Your task to perform on an android device: turn off priority inbox in the gmail app Image 0: 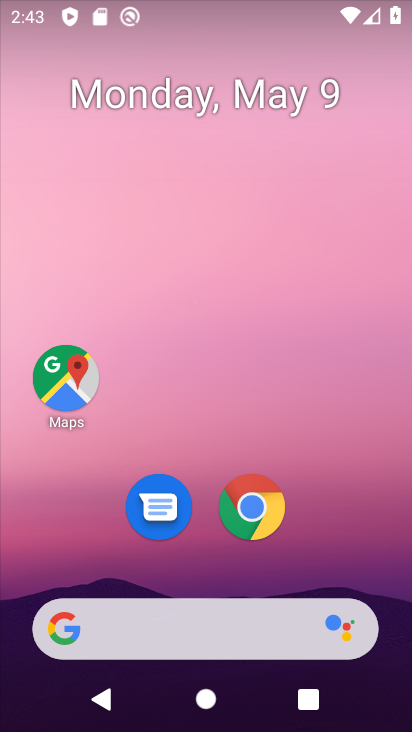
Step 0: drag from (263, 585) to (90, 3)
Your task to perform on an android device: turn off priority inbox in the gmail app Image 1: 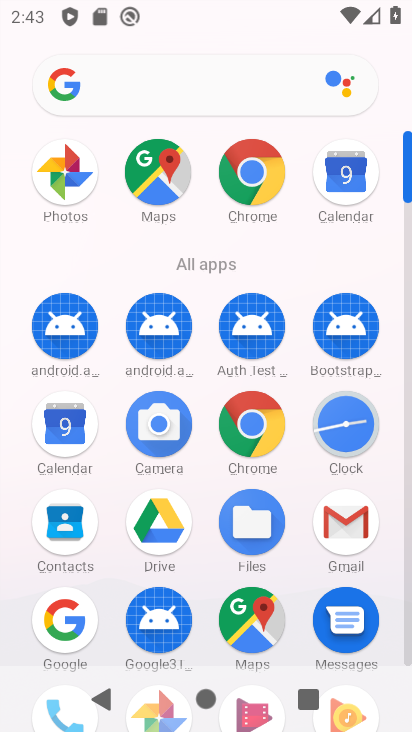
Step 1: click (376, 500)
Your task to perform on an android device: turn off priority inbox in the gmail app Image 2: 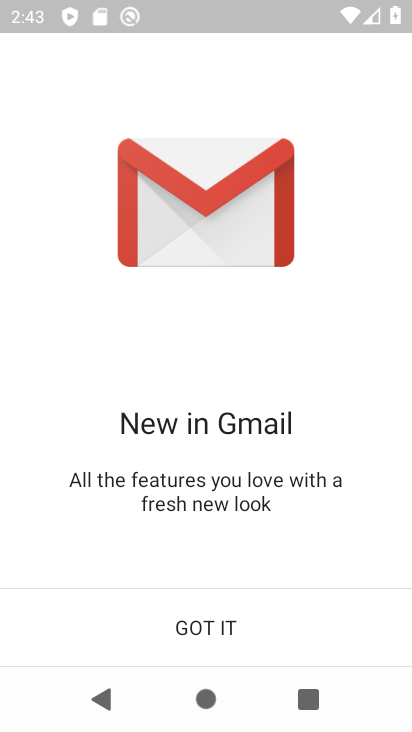
Step 2: click (353, 511)
Your task to perform on an android device: turn off priority inbox in the gmail app Image 3: 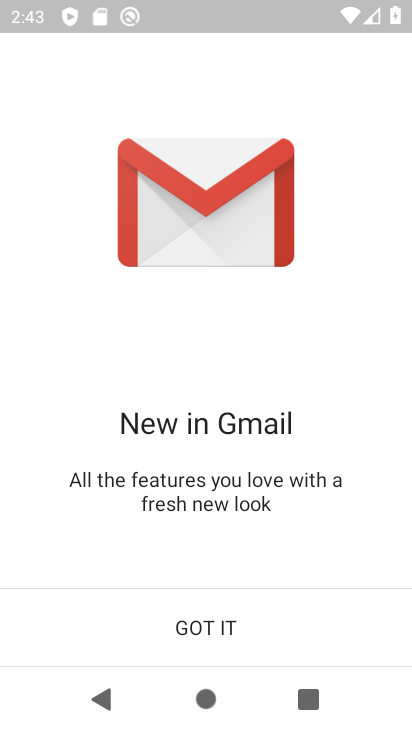
Step 3: click (209, 609)
Your task to perform on an android device: turn off priority inbox in the gmail app Image 4: 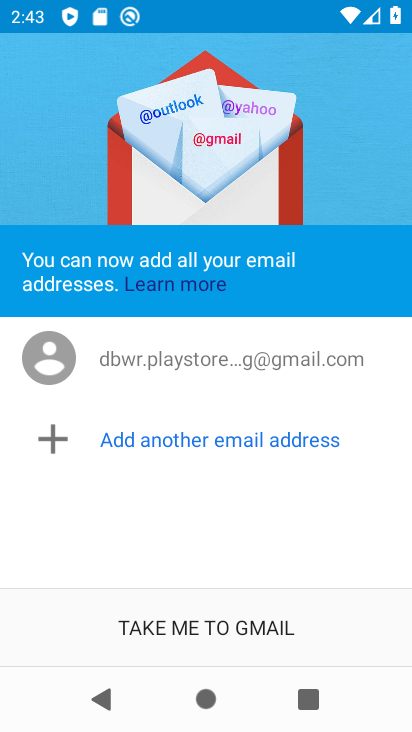
Step 4: click (209, 609)
Your task to perform on an android device: turn off priority inbox in the gmail app Image 5: 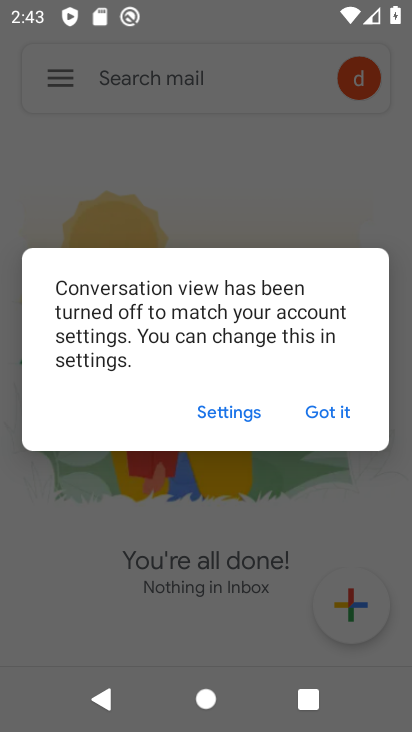
Step 5: click (318, 416)
Your task to perform on an android device: turn off priority inbox in the gmail app Image 6: 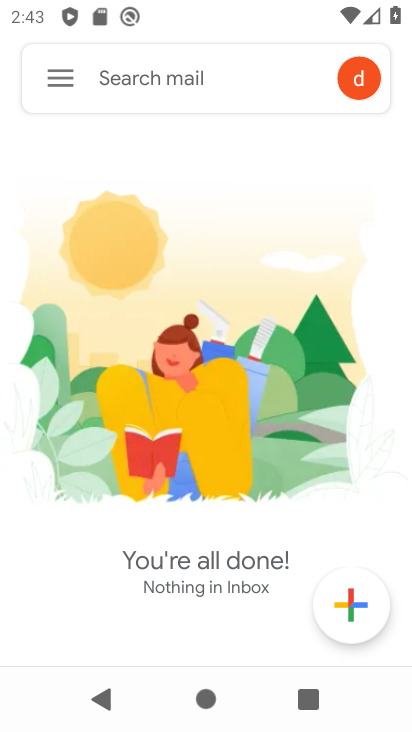
Step 6: click (67, 73)
Your task to perform on an android device: turn off priority inbox in the gmail app Image 7: 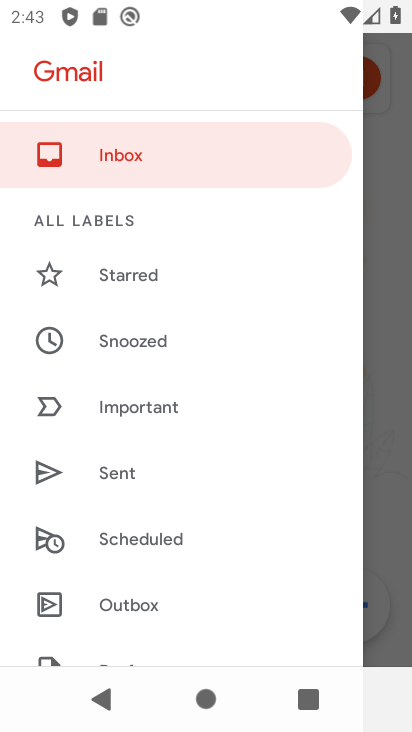
Step 7: drag from (123, 559) to (221, 183)
Your task to perform on an android device: turn off priority inbox in the gmail app Image 8: 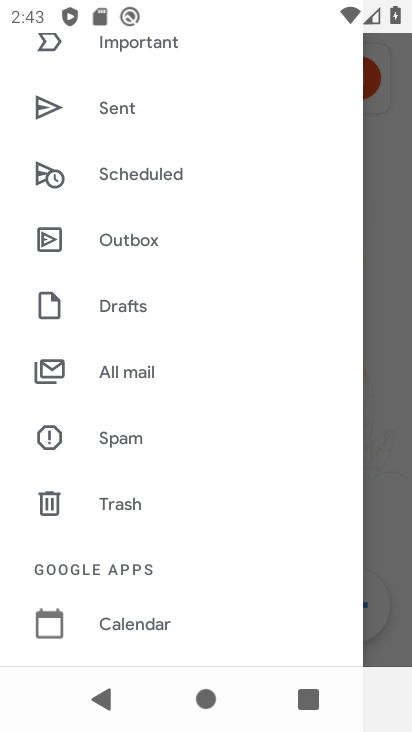
Step 8: drag from (102, 529) to (258, 67)
Your task to perform on an android device: turn off priority inbox in the gmail app Image 9: 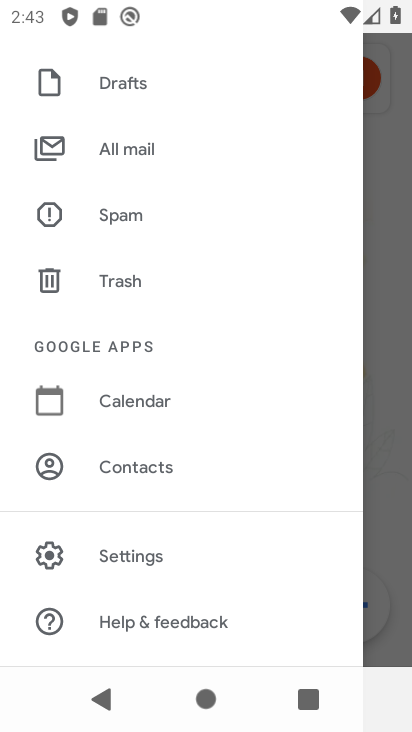
Step 9: click (138, 564)
Your task to perform on an android device: turn off priority inbox in the gmail app Image 10: 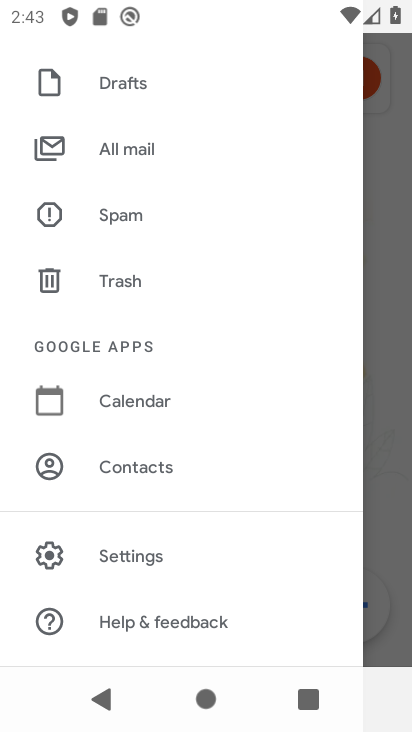
Step 10: click (138, 564)
Your task to perform on an android device: turn off priority inbox in the gmail app Image 11: 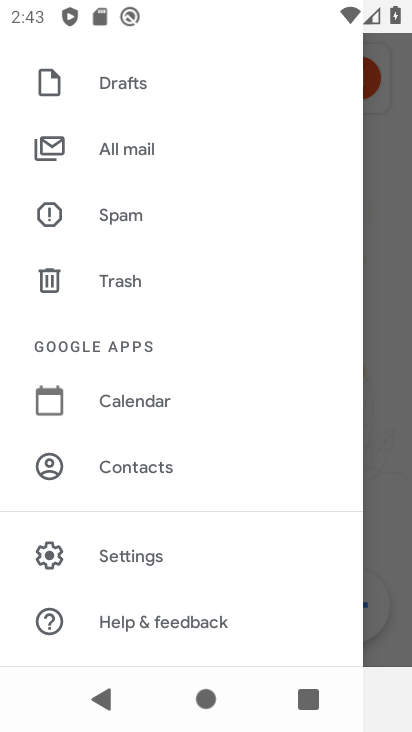
Step 11: click (145, 547)
Your task to perform on an android device: turn off priority inbox in the gmail app Image 12: 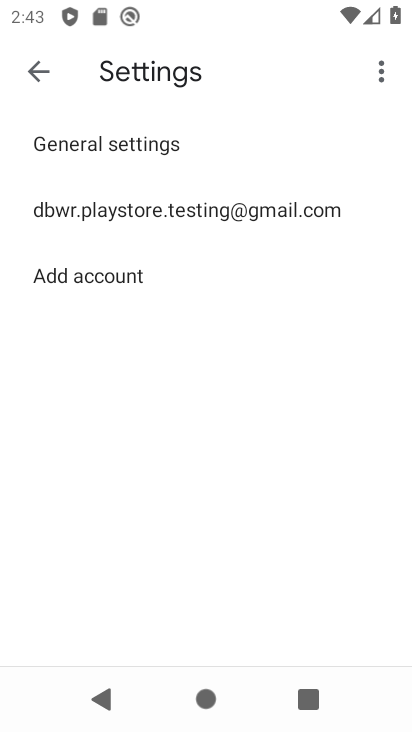
Step 12: click (131, 211)
Your task to perform on an android device: turn off priority inbox in the gmail app Image 13: 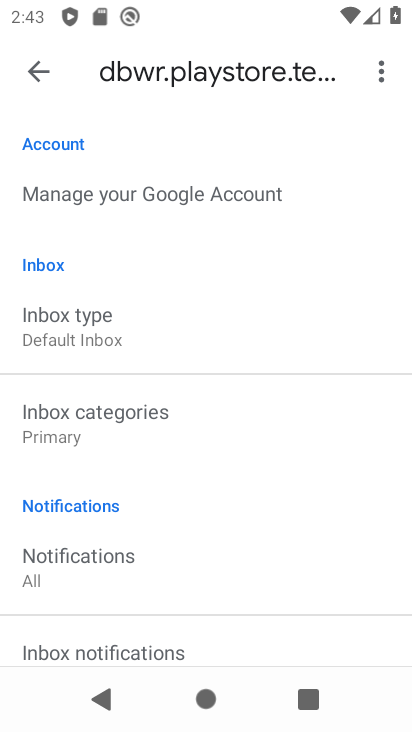
Step 13: click (118, 329)
Your task to perform on an android device: turn off priority inbox in the gmail app Image 14: 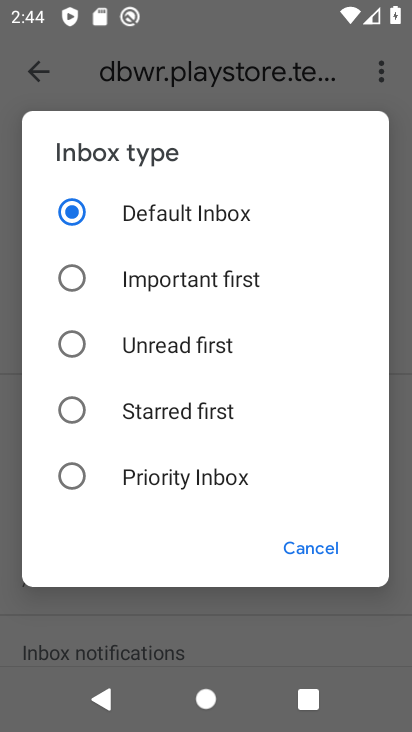
Step 14: click (215, 481)
Your task to perform on an android device: turn off priority inbox in the gmail app Image 15: 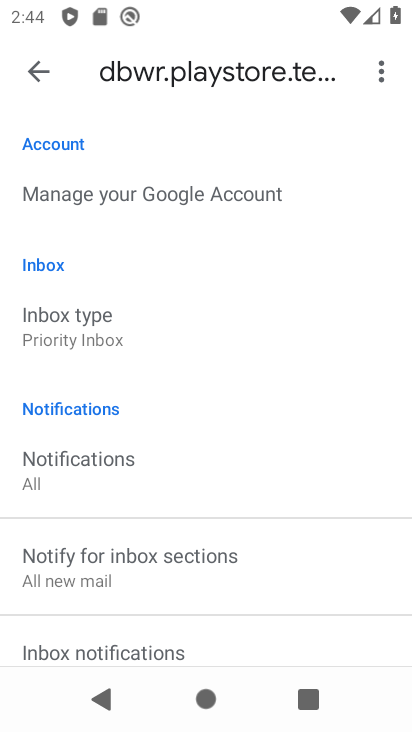
Step 15: click (198, 340)
Your task to perform on an android device: turn off priority inbox in the gmail app Image 16: 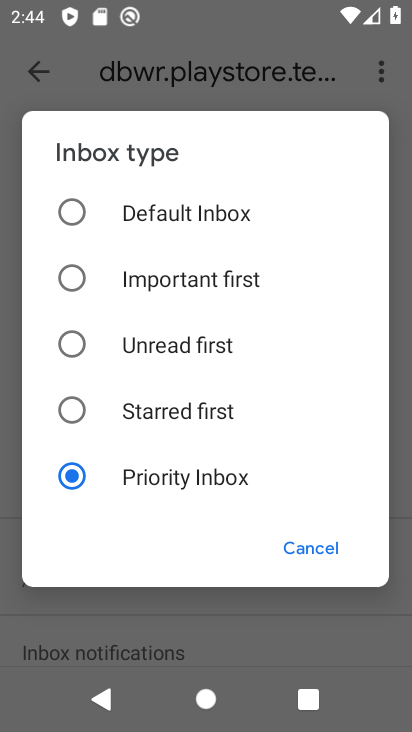
Step 16: click (188, 409)
Your task to perform on an android device: turn off priority inbox in the gmail app Image 17: 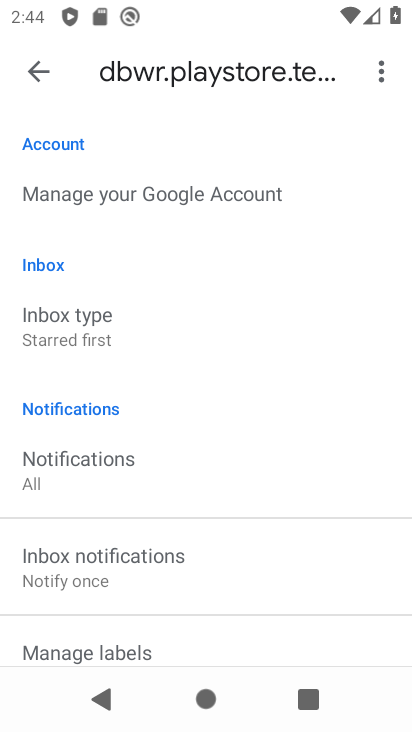
Step 17: task complete